Your task to perform on an android device: see tabs open on other devices in the chrome app Image 0: 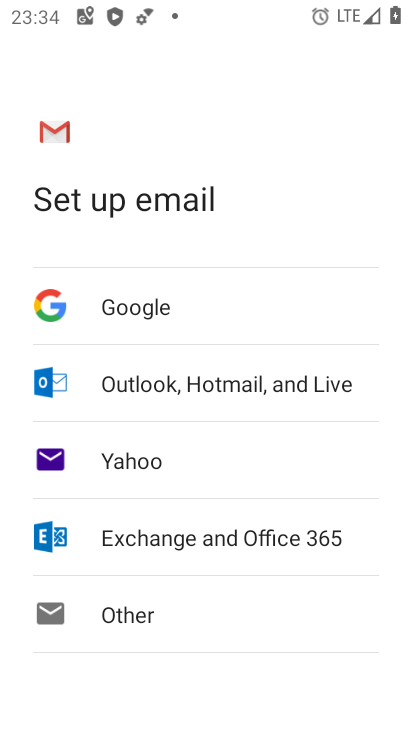
Step 0: press home button
Your task to perform on an android device: see tabs open on other devices in the chrome app Image 1: 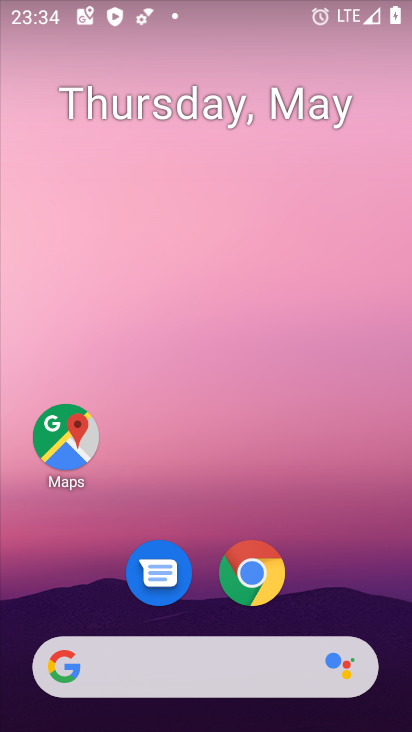
Step 1: click (240, 587)
Your task to perform on an android device: see tabs open on other devices in the chrome app Image 2: 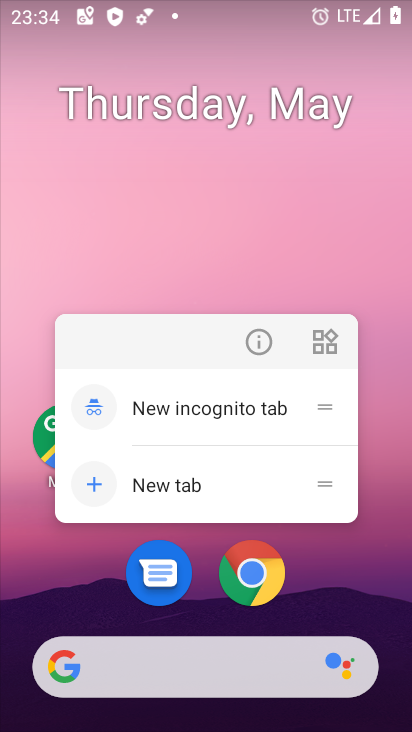
Step 2: click (263, 595)
Your task to perform on an android device: see tabs open on other devices in the chrome app Image 3: 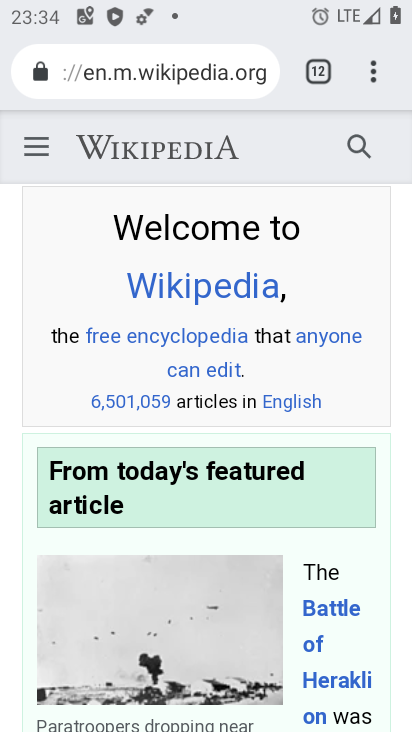
Step 3: click (377, 69)
Your task to perform on an android device: see tabs open on other devices in the chrome app Image 4: 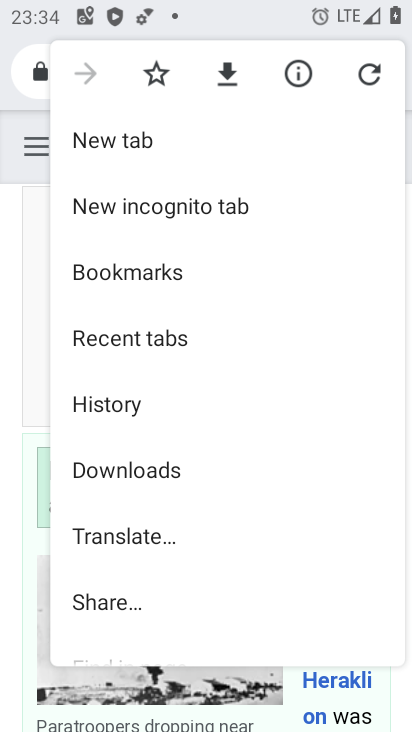
Step 4: click (172, 335)
Your task to perform on an android device: see tabs open on other devices in the chrome app Image 5: 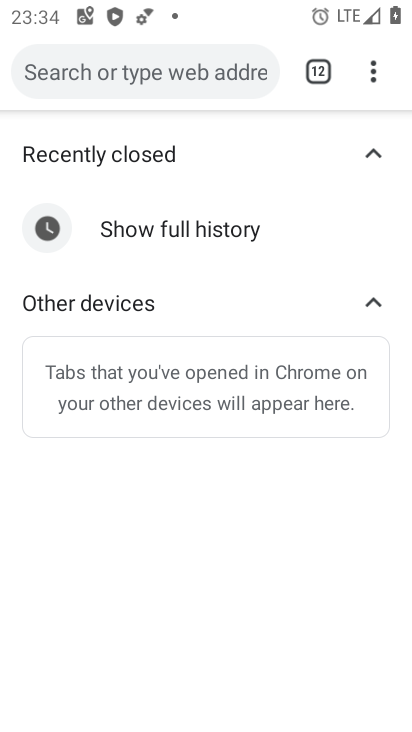
Step 5: task complete